Your task to perform on an android device: Go to internet settings Image 0: 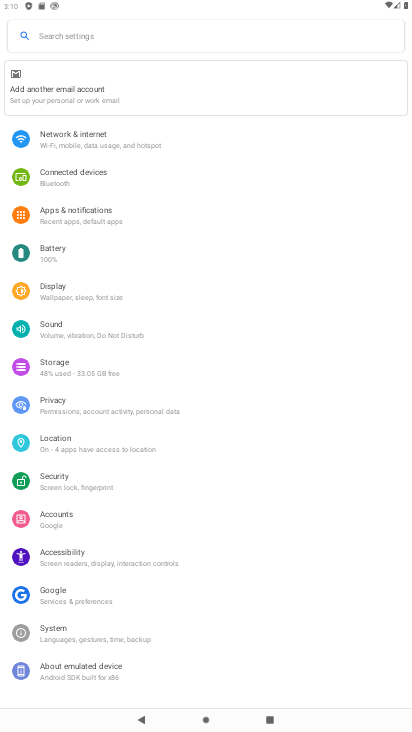
Step 0: click (73, 150)
Your task to perform on an android device: Go to internet settings Image 1: 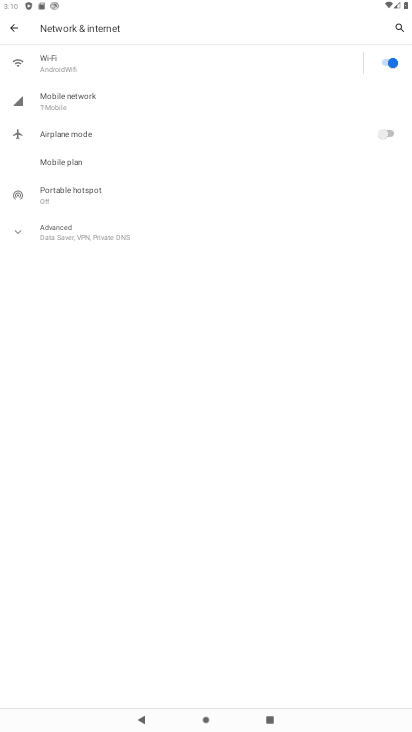
Step 1: task complete